Your task to perform on an android device: Open sound settings Image 0: 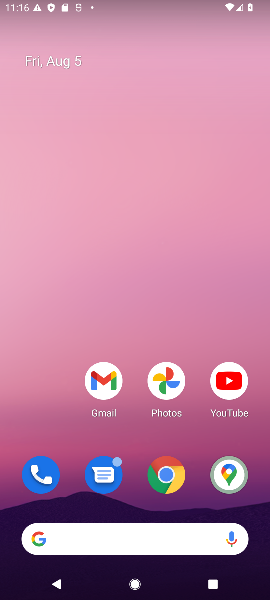
Step 0: drag from (130, 509) to (187, 63)
Your task to perform on an android device: Open sound settings Image 1: 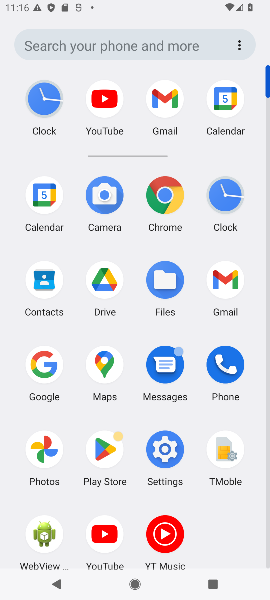
Step 1: click (170, 471)
Your task to perform on an android device: Open sound settings Image 2: 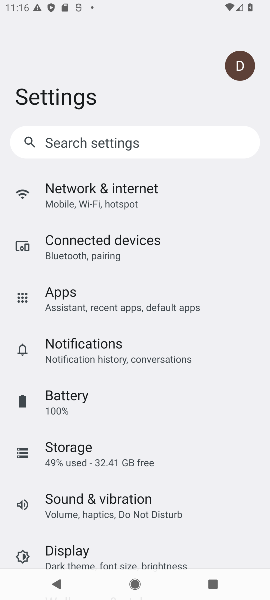
Step 2: click (81, 503)
Your task to perform on an android device: Open sound settings Image 3: 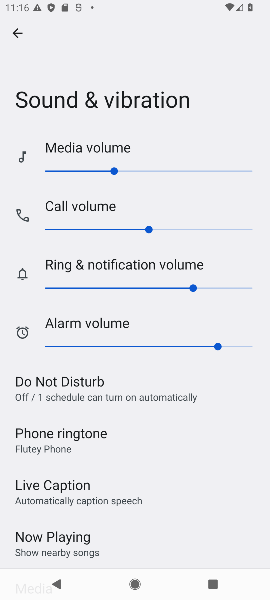
Step 3: task complete